Your task to perform on an android device: search for starred emails in the gmail app Image 0: 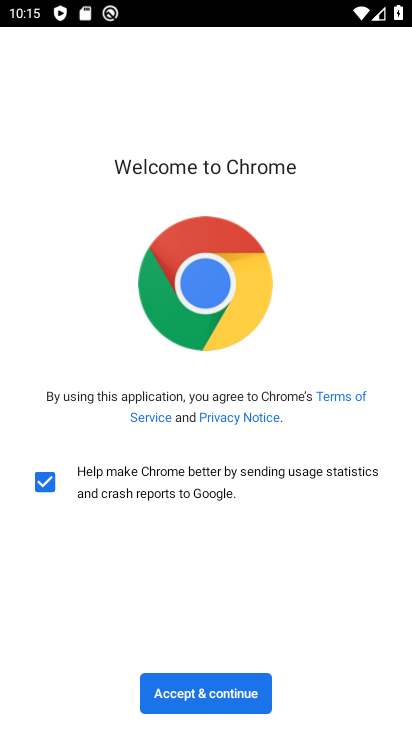
Step 0: press back button
Your task to perform on an android device: search for starred emails in the gmail app Image 1: 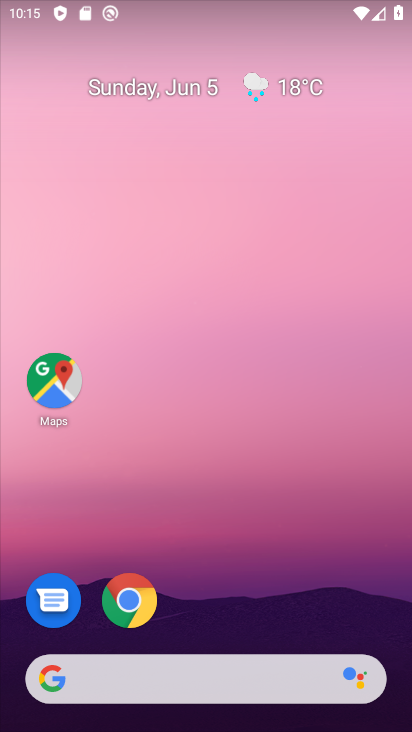
Step 1: drag from (271, 607) to (271, 338)
Your task to perform on an android device: search for starred emails in the gmail app Image 2: 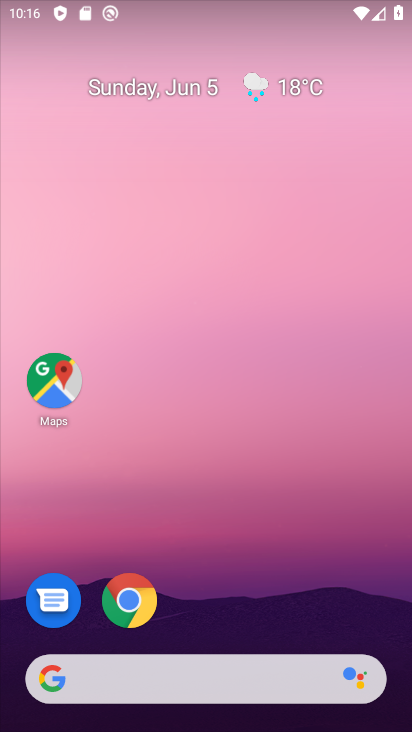
Step 2: drag from (198, 602) to (227, 69)
Your task to perform on an android device: search for starred emails in the gmail app Image 3: 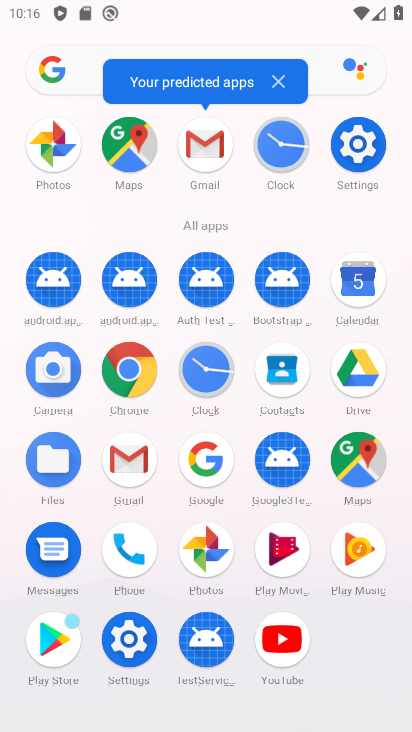
Step 3: click (196, 135)
Your task to perform on an android device: search for starred emails in the gmail app Image 4: 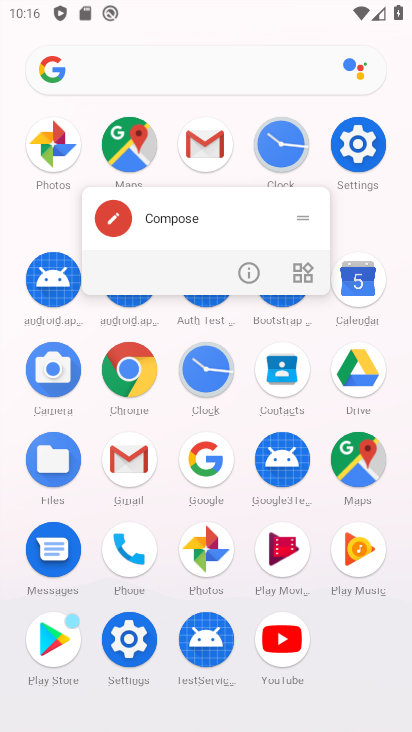
Step 4: click (191, 154)
Your task to perform on an android device: search for starred emails in the gmail app Image 5: 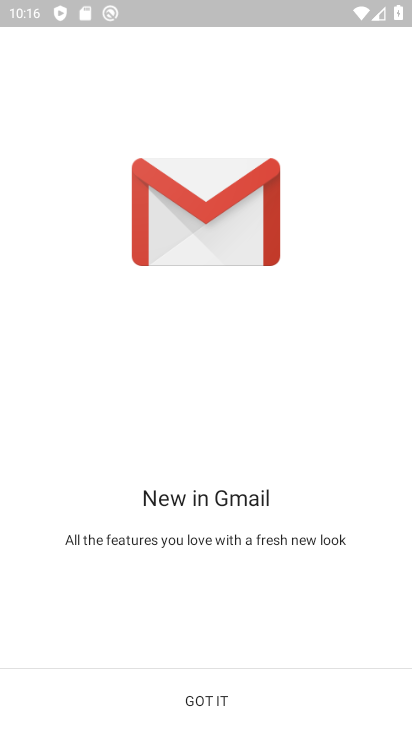
Step 5: click (190, 697)
Your task to perform on an android device: search for starred emails in the gmail app Image 6: 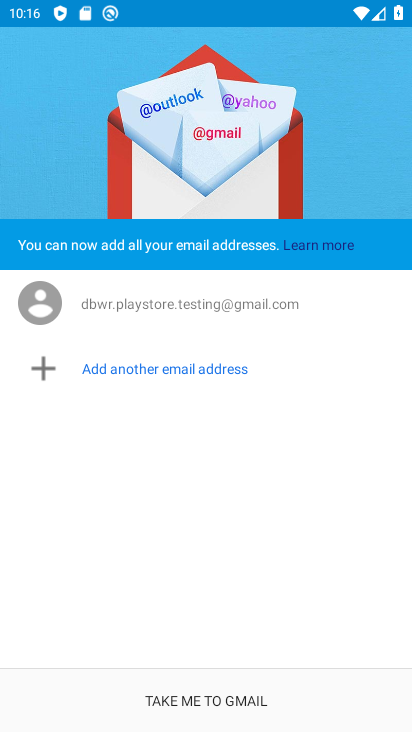
Step 6: click (197, 689)
Your task to perform on an android device: search for starred emails in the gmail app Image 7: 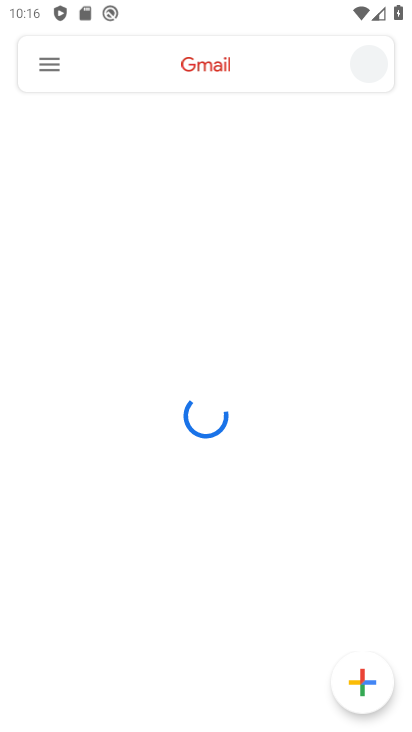
Step 7: click (56, 64)
Your task to perform on an android device: search for starred emails in the gmail app Image 8: 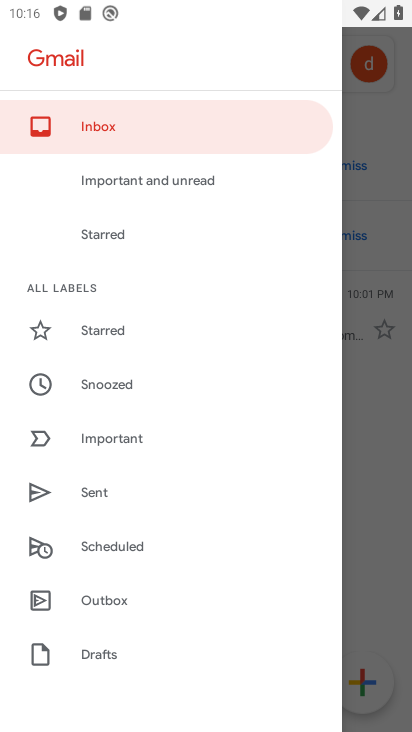
Step 8: click (111, 230)
Your task to perform on an android device: search for starred emails in the gmail app Image 9: 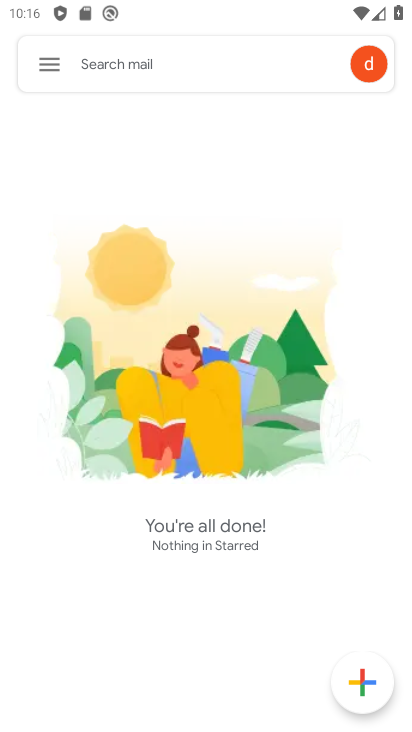
Step 9: task complete